Your task to perform on an android device: turn vacation reply on in the gmail app Image 0: 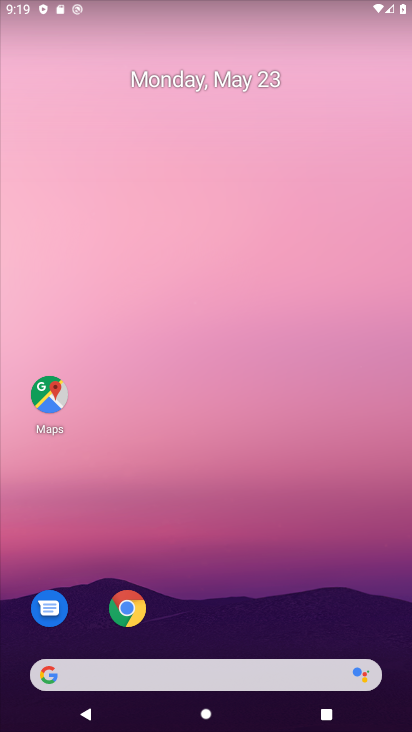
Step 0: drag from (230, 613) to (232, 73)
Your task to perform on an android device: turn vacation reply on in the gmail app Image 1: 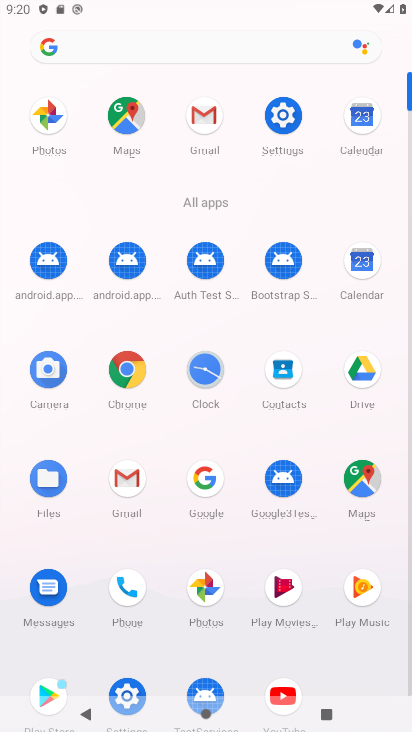
Step 1: click (202, 134)
Your task to perform on an android device: turn vacation reply on in the gmail app Image 2: 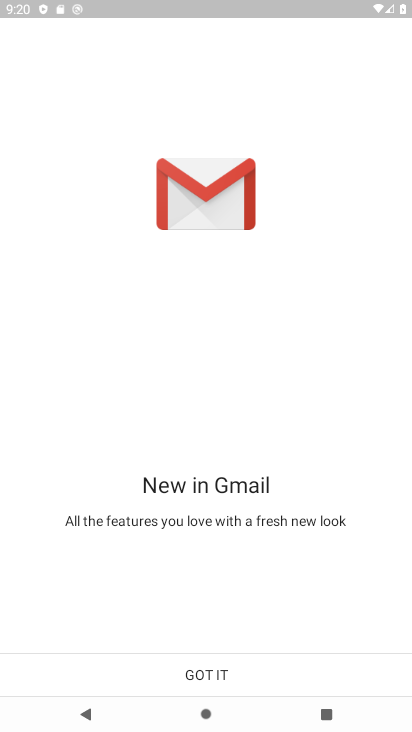
Step 2: click (201, 678)
Your task to perform on an android device: turn vacation reply on in the gmail app Image 3: 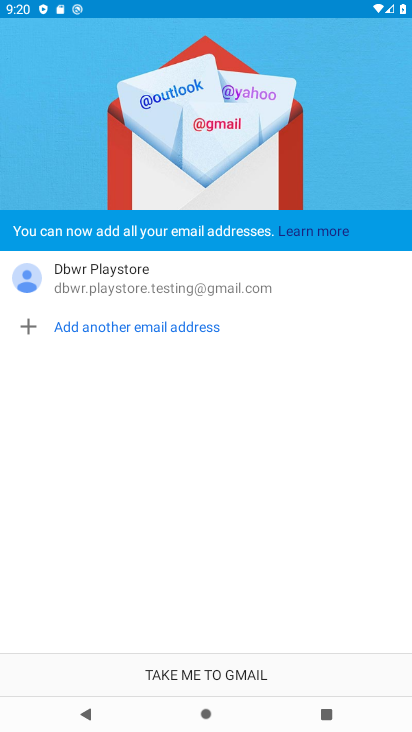
Step 3: click (201, 678)
Your task to perform on an android device: turn vacation reply on in the gmail app Image 4: 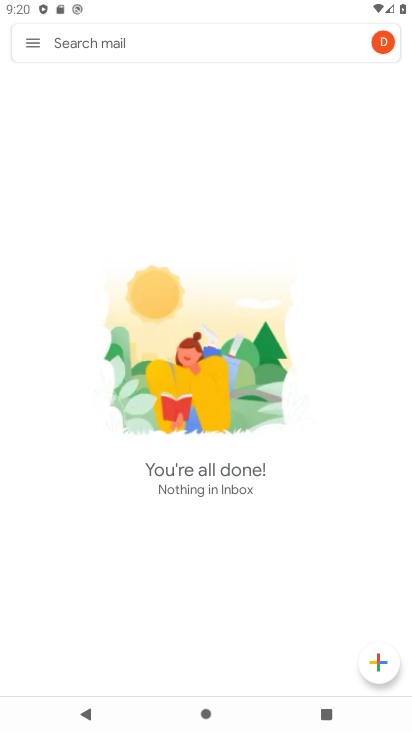
Step 4: click (35, 36)
Your task to perform on an android device: turn vacation reply on in the gmail app Image 5: 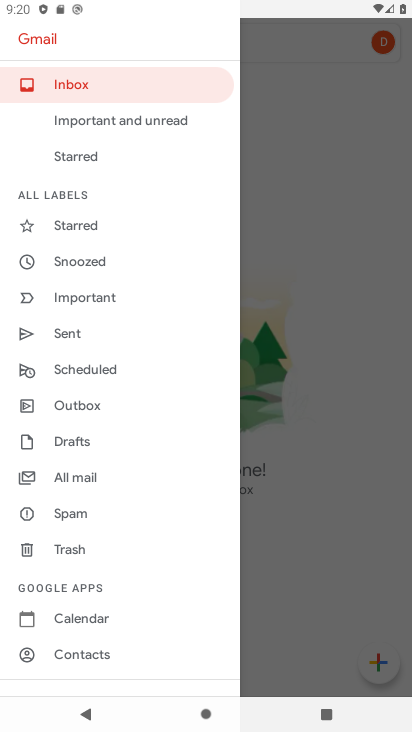
Step 5: drag from (94, 642) to (57, 191)
Your task to perform on an android device: turn vacation reply on in the gmail app Image 6: 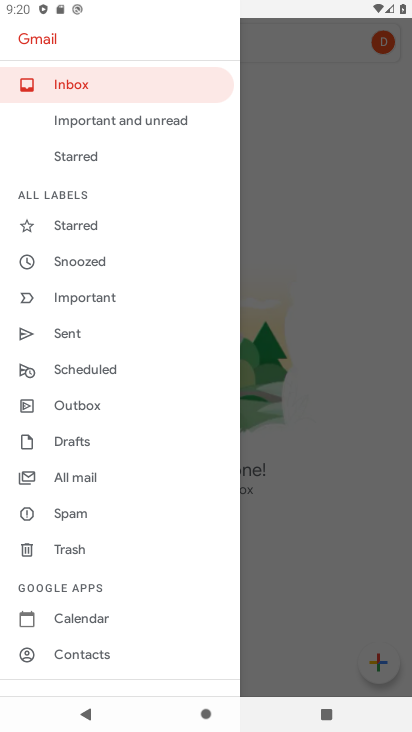
Step 6: drag from (97, 635) to (72, 282)
Your task to perform on an android device: turn vacation reply on in the gmail app Image 7: 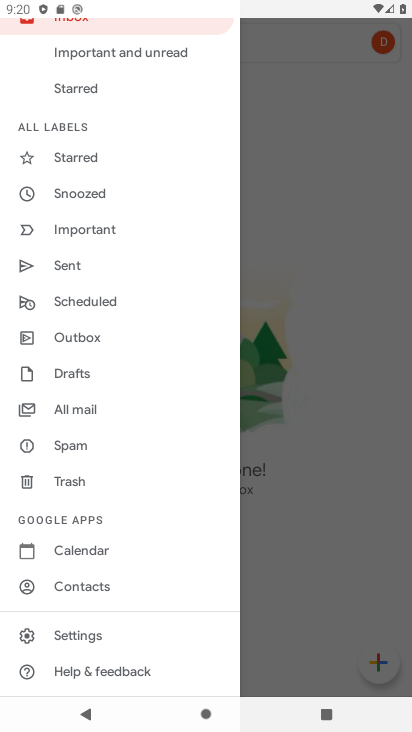
Step 7: click (88, 639)
Your task to perform on an android device: turn vacation reply on in the gmail app Image 8: 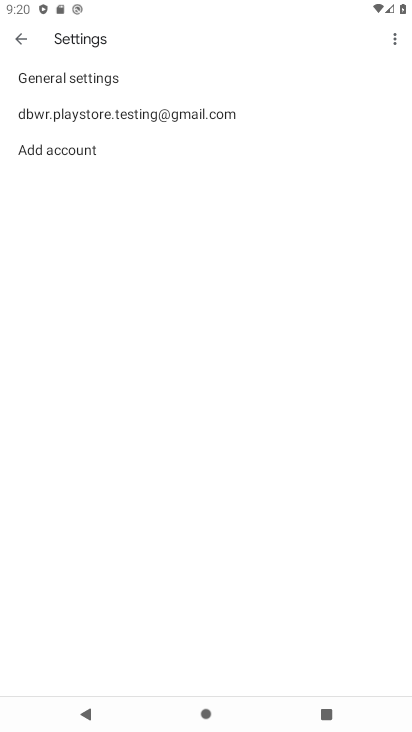
Step 8: click (238, 113)
Your task to perform on an android device: turn vacation reply on in the gmail app Image 9: 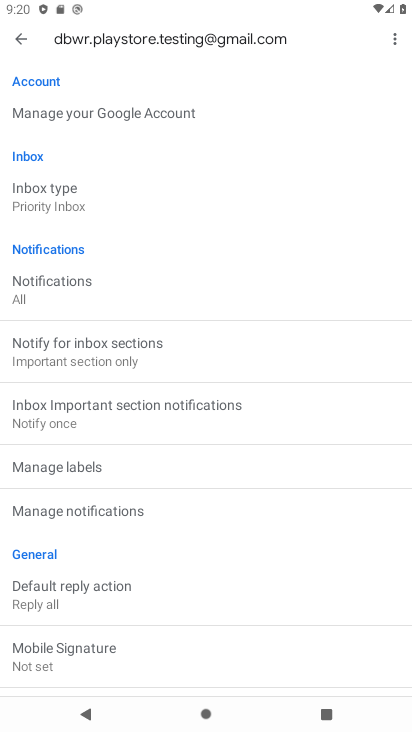
Step 9: drag from (165, 663) to (153, 360)
Your task to perform on an android device: turn vacation reply on in the gmail app Image 10: 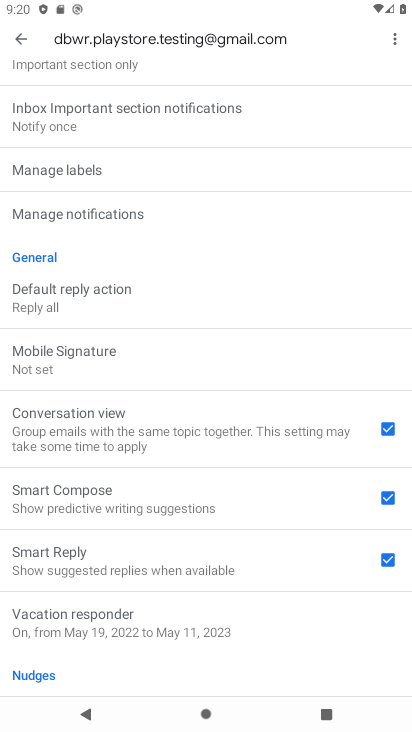
Step 10: click (139, 639)
Your task to perform on an android device: turn vacation reply on in the gmail app Image 11: 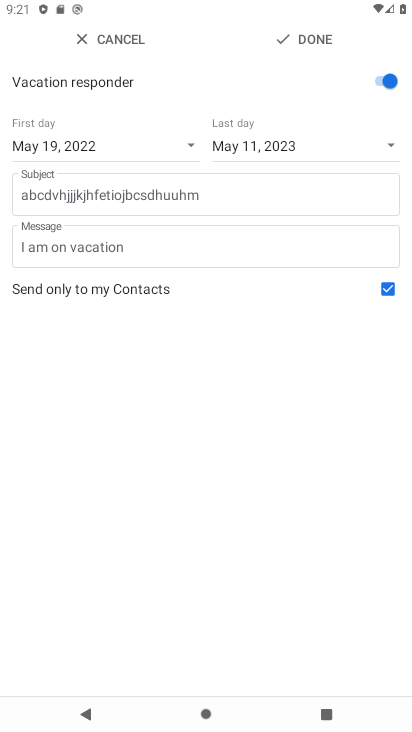
Step 11: click (318, 37)
Your task to perform on an android device: turn vacation reply on in the gmail app Image 12: 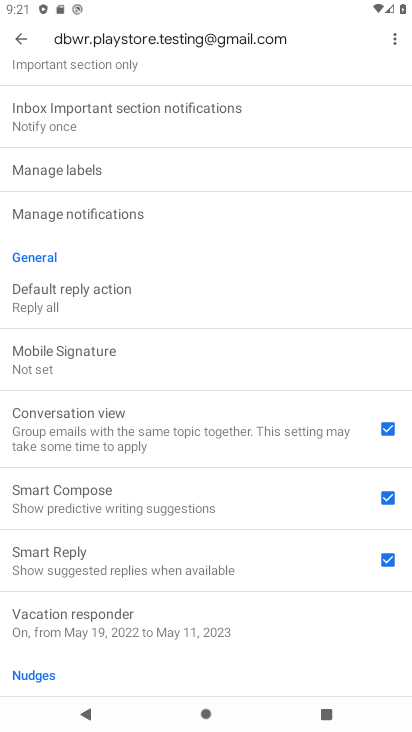
Step 12: task complete